Your task to perform on an android device: Search for "custom wallet" on Etsy. Image 0: 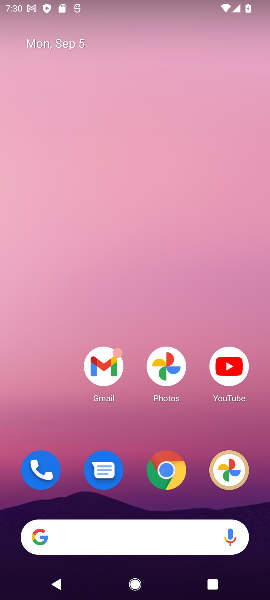
Step 0: drag from (126, 511) to (132, 15)
Your task to perform on an android device: Search for "custom wallet" on Etsy. Image 1: 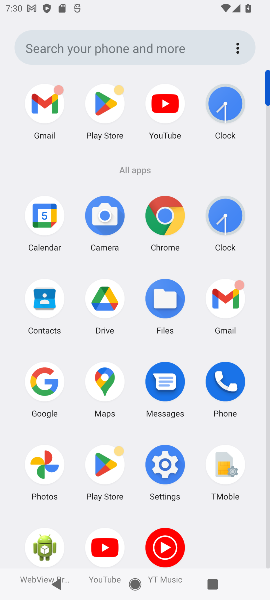
Step 1: click (172, 228)
Your task to perform on an android device: Search for "custom wallet" on Etsy. Image 2: 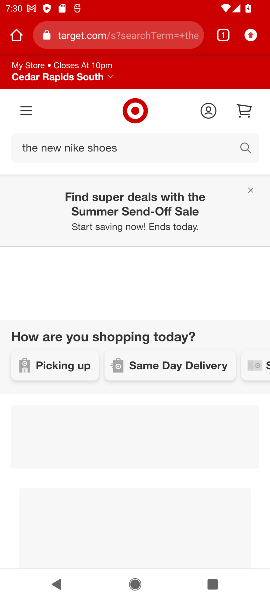
Step 2: click (134, 30)
Your task to perform on an android device: Search for "custom wallet" on Etsy. Image 3: 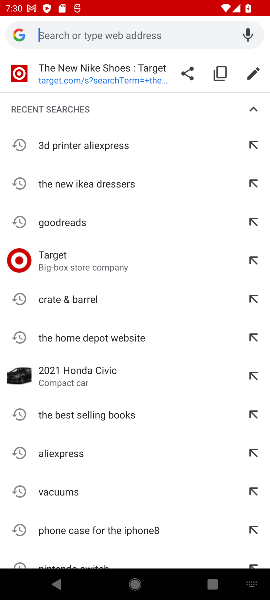
Step 3: type "Etsy"
Your task to perform on an android device: Search for "custom wallet" on Etsy. Image 4: 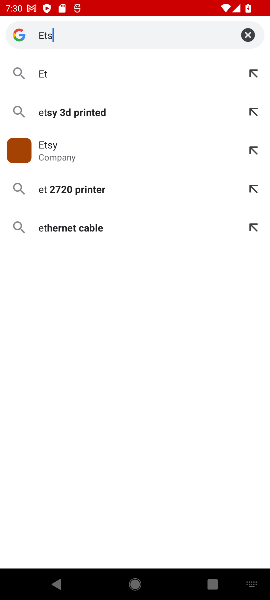
Step 4: type ""
Your task to perform on an android device: Search for "custom wallet" on Etsy. Image 5: 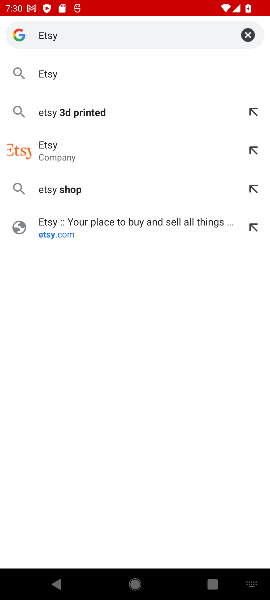
Step 5: click (42, 76)
Your task to perform on an android device: Search for "custom wallet" on Etsy. Image 6: 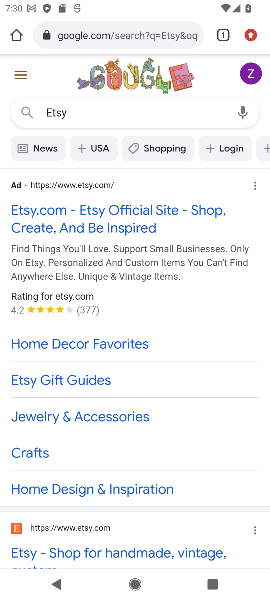
Step 6: click (42, 233)
Your task to perform on an android device: Search for "custom wallet" on Etsy. Image 7: 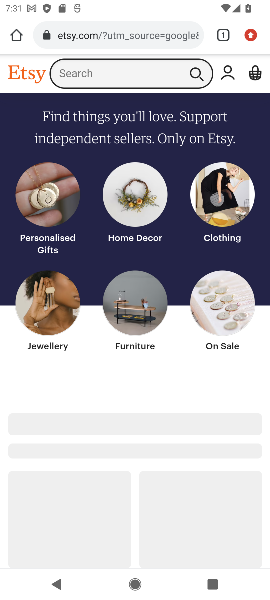
Step 7: click (110, 76)
Your task to perform on an android device: Search for "custom wallet" on Etsy. Image 8: 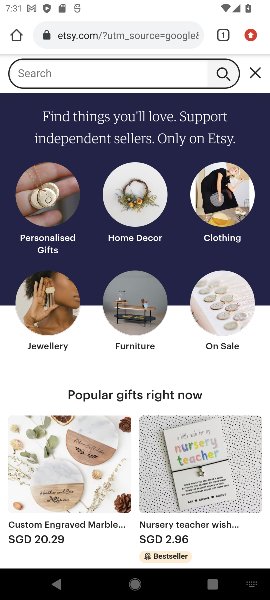
Step 8: type "custom wallet"
Your task to perform on an android device: Search for "custom wallet" on Etsy. Image 9: 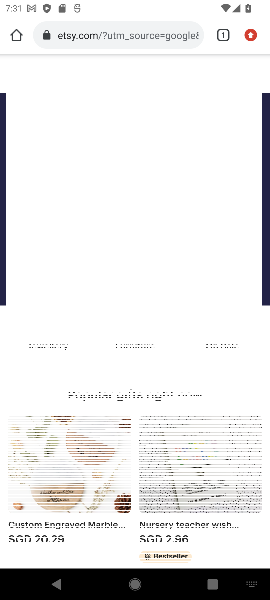
Step 9: click (83, 83)
Your task to perform on an android device: Search for "custom wallet" on Etsy. Image 10: 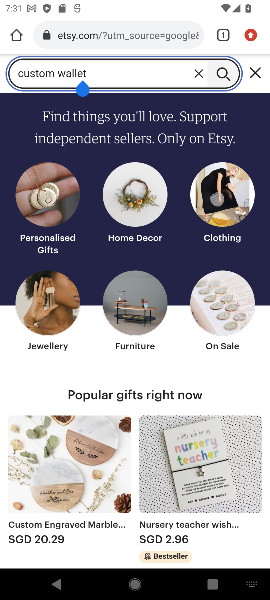
Step 10: click (221, 71)
Your task to perform on an android device: Search for "custom wallet" on Etsy. Image 11: 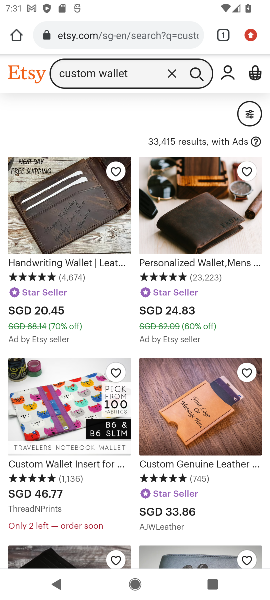
Step 11: task complete